Your task to perform on an android device: Search for sushi restaurants on Maps Image 0: 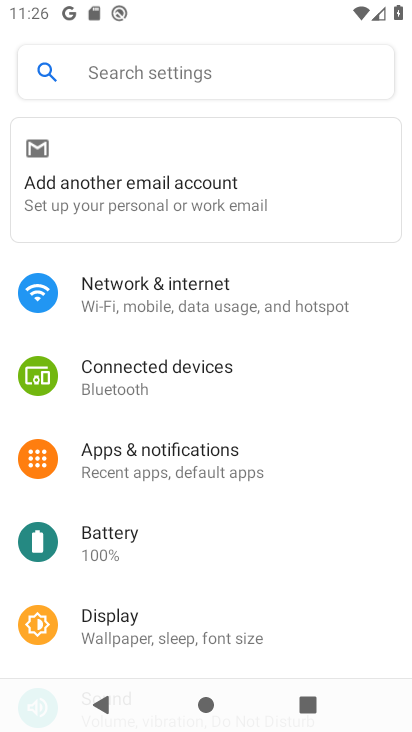
Step 0: press home button
Your task to perform on an android device: Search for sushi restaurants on Maps Image 1: 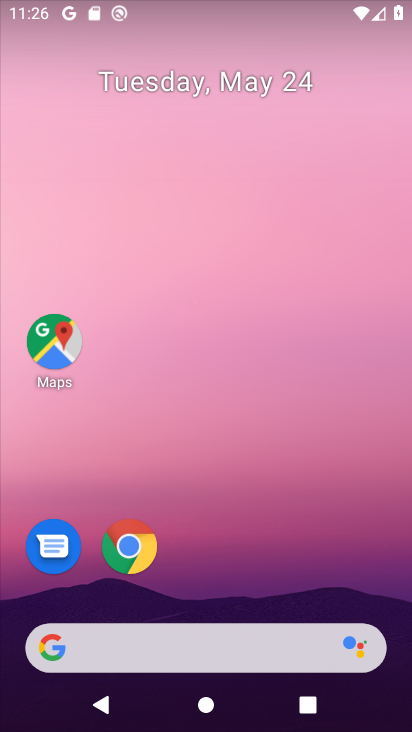
Step 1: click (86, 337)
Your task to perform on an android device: Search for sushi restaurants on Maps Image 2: 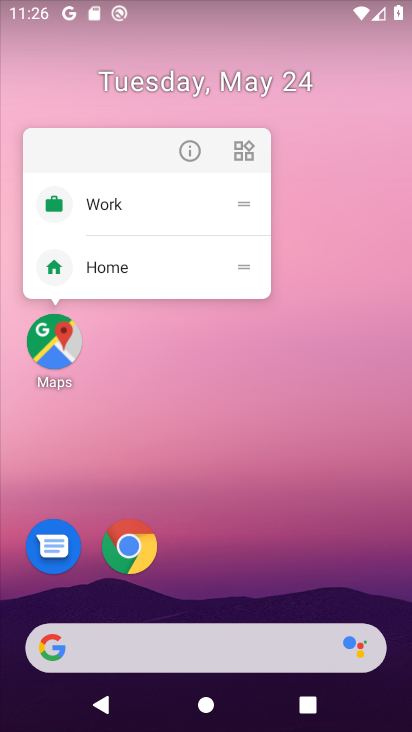
Step 2: click (86, 337)
Your task to perform on an android device: Search for sushi restaurants on Maps Image 3: 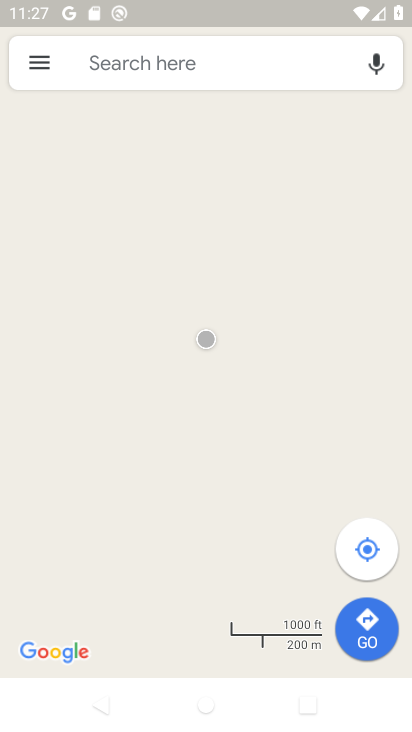
Step 3: click (143, 60)
Your task to perform on an android device: Search for sushi restaurants on Maps Image 4: 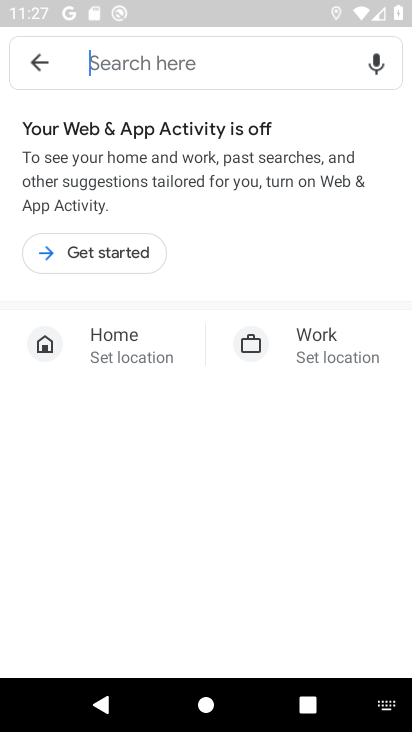
Step 4: type "Sushi restaurants"
Your task to perform on an android device: Search for sushi restaurants on Maps Image 5: 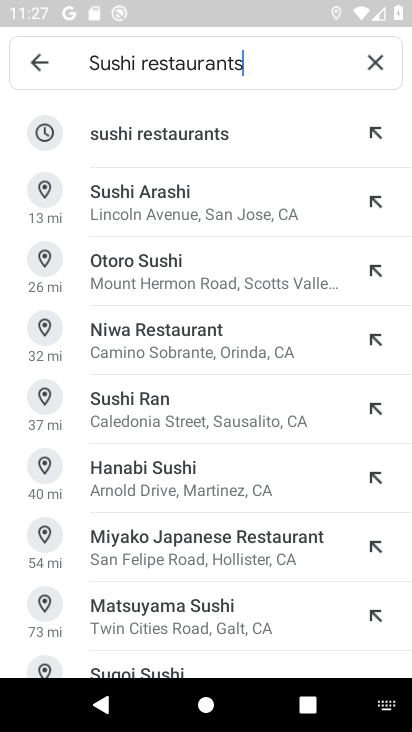
Step 5: click (187, 125)
Your task to perform on an android device: Search for sushi restaurants on Maps Image 6: 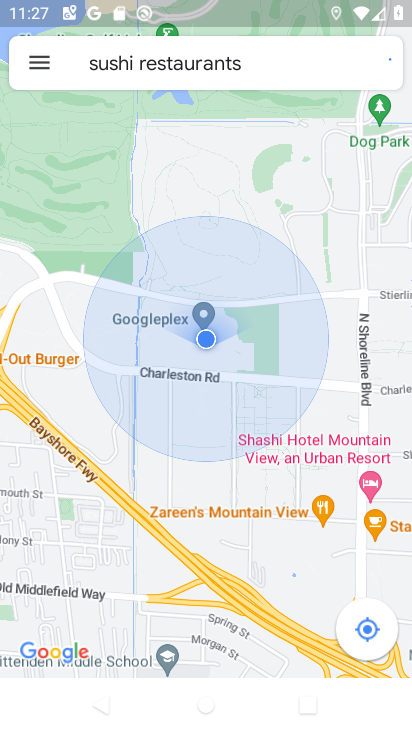
Step 6: task complete